Your task to perform on an android device: Check the weather Image 0: 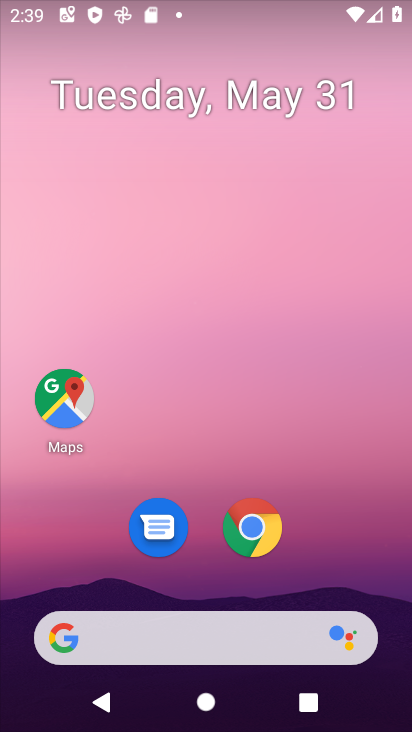
Step 0: drag from (329, 545) to (252, 40)
Your task to perform on an android device: Check the weather Image 1: 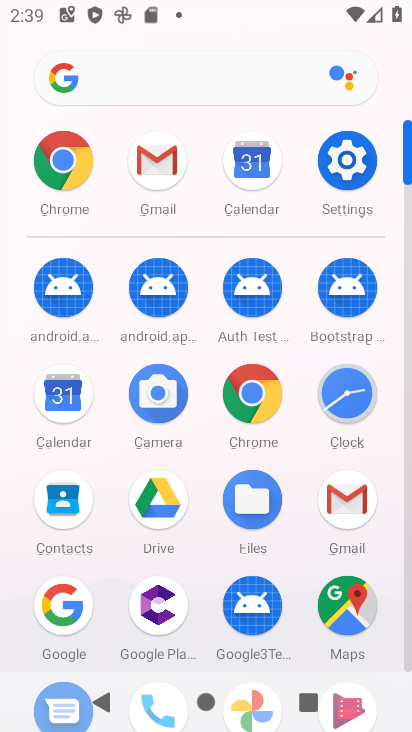
Step 1: click (54, 83)
Your task to perform on an android device: Check the weather Image 2: 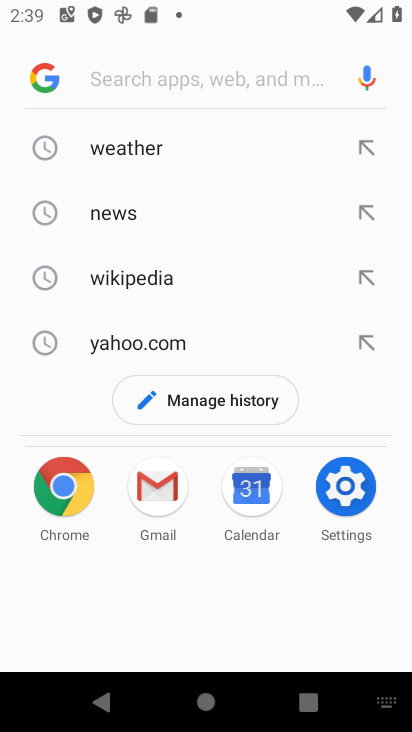
Step 2: click (54, 83)
Your task to perform on an android device: Check the weather Image 3: 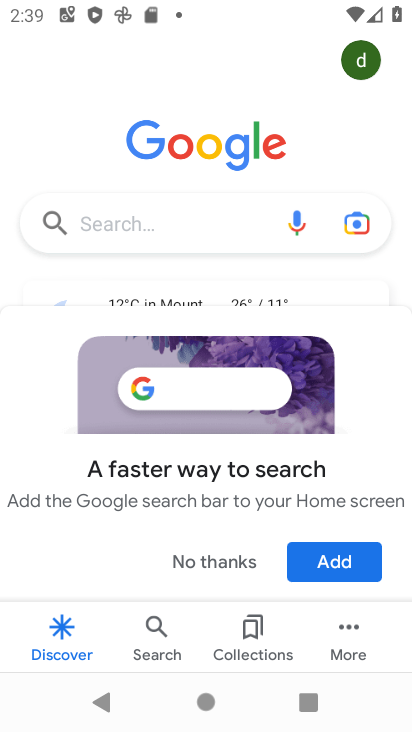
Step 3: drag from (244, 275) to (226, 21)
Your task to perform on an android device: Check the weather Image 4: 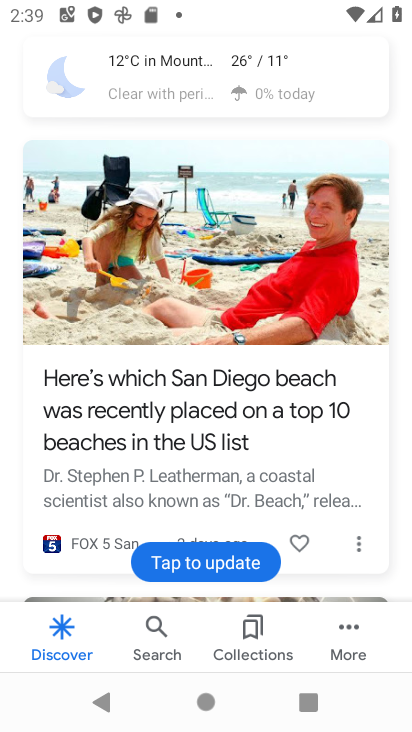
Step 4: click (215, 60)
Your task to perform on an android device: Check the weather Image 5: 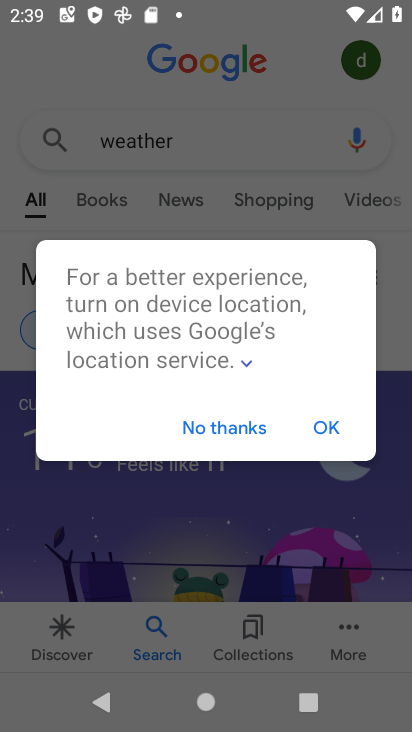
Step 5: click (251, 422)
Your task to perform on an android device: Check the weather Image 6: 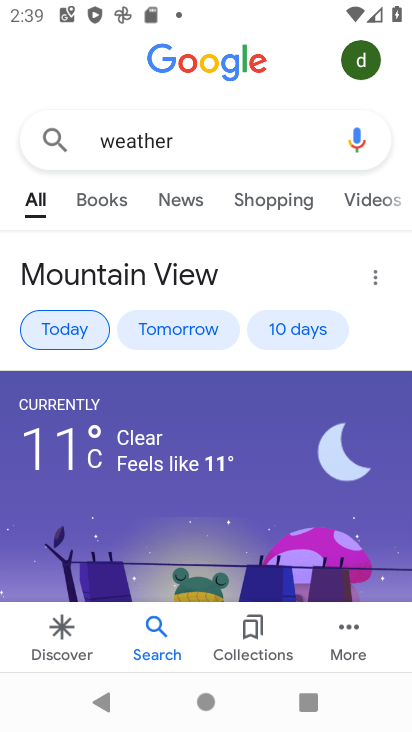
Step 6: task complete